Your task to perform on an android device: Open Google Image 0: 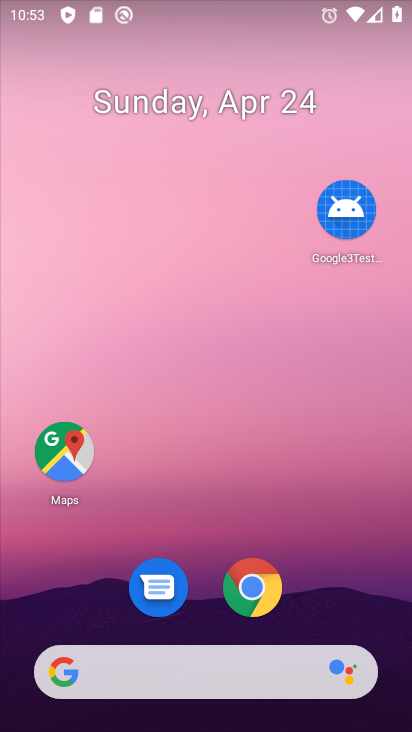
Step 0: drag from (329, 576) to (343, 113)
Your task to perform on an android device: Open Google Image 1: 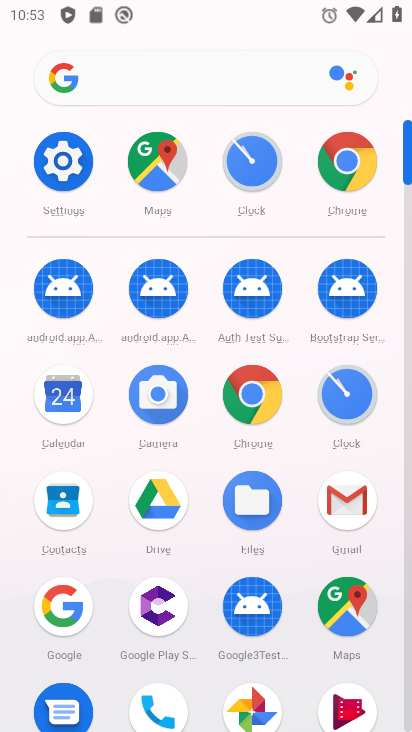
Step 1: click (79, 597)
Your task to perform on an android device: Open Google Image 2: 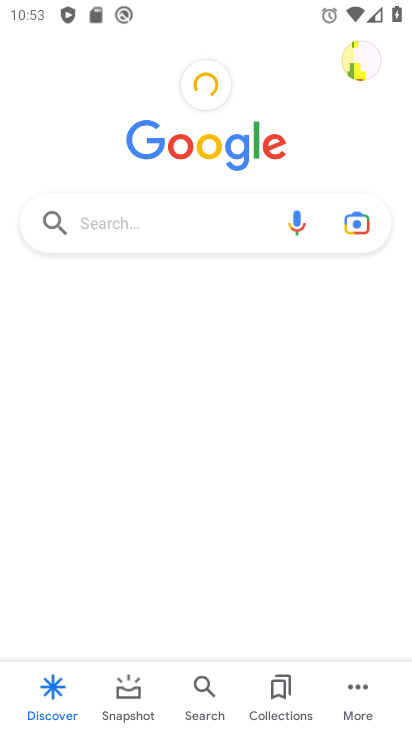
Step 2: click (173, 225)
Your task to perform on an android device: Open Google Image 3: 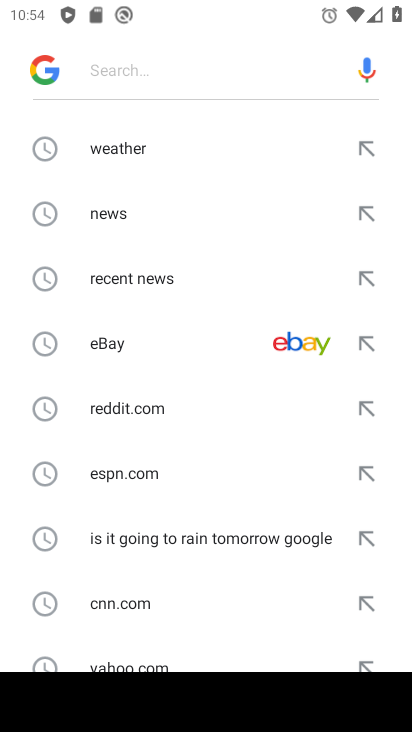
Step 3: task complete